Your task to perform on an android device: Open settings Image 0: 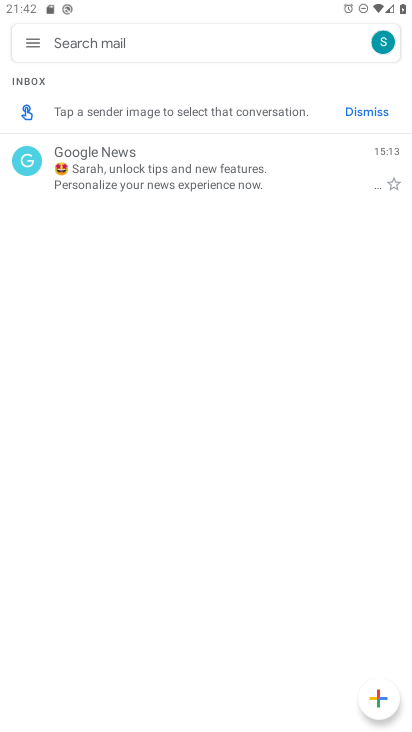
Step 0: press home button
Your task to perform on an android device: Open settings Image 1: 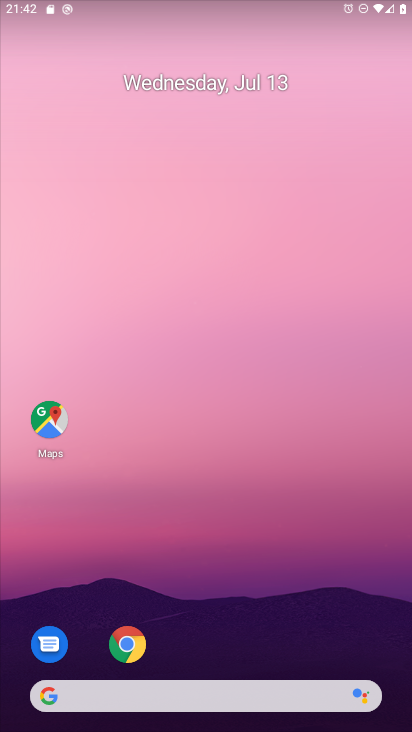
Step 1: drag from (259, 563) to (264, 74)
Your task to perform on an android device: Open settings Image 2: 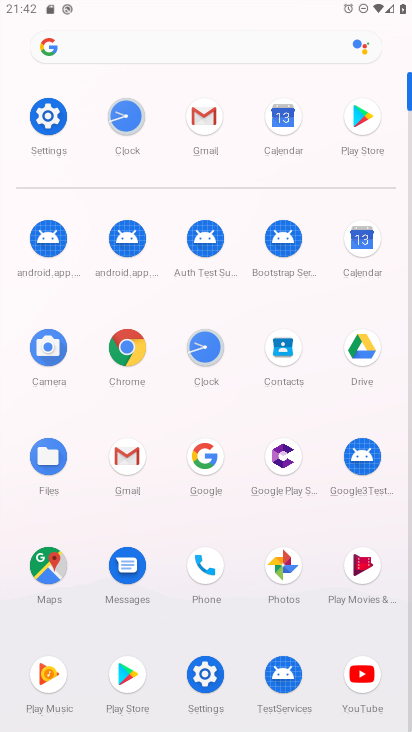
Step 2: click (44, 114)
Your task to perform on an android device: Open settings Image 3: 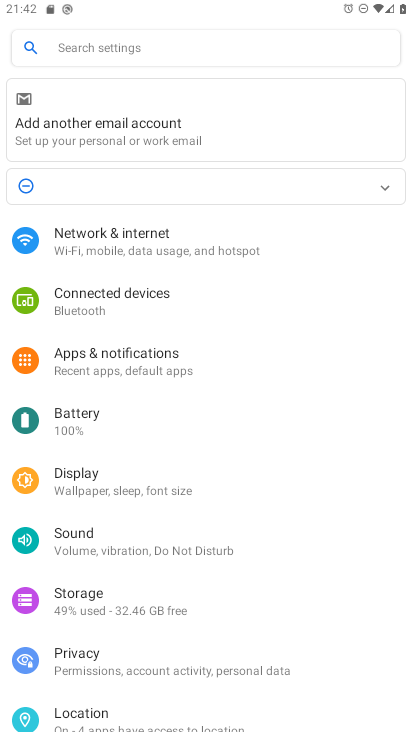
Step 3: task complete